Your task to perform on an android device: Open the web browser Image 0: 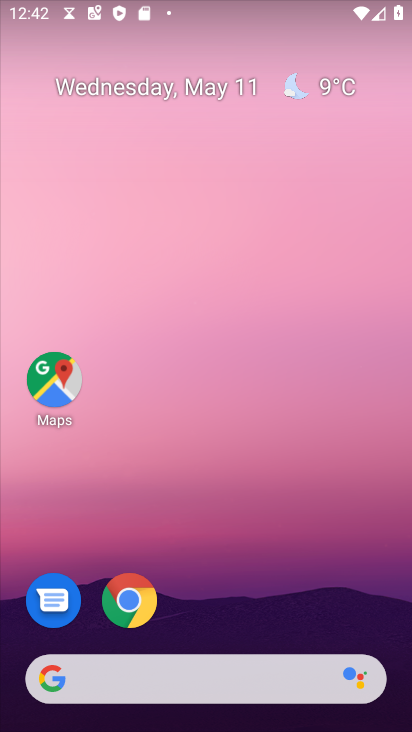
Step 0: click (141, 601)
Your task to perform on an android device: Open the web browser Image 1: 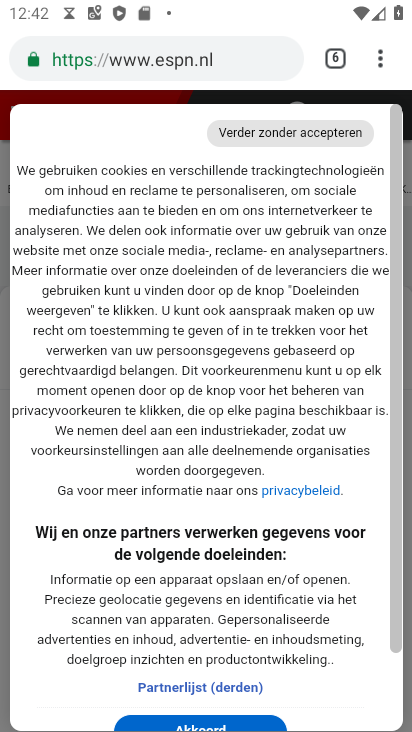
Step 1: task complete